Your task to perform on an android device: Open battery settings Image 0: 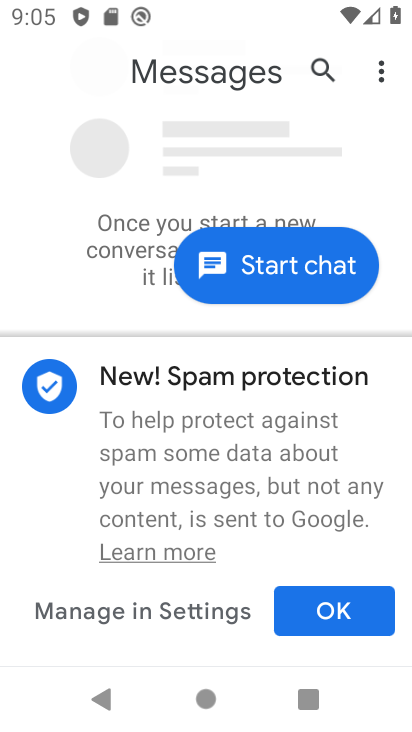
Step 0: press back button
Your task to perform on an android device: Open battery settings Image 1: 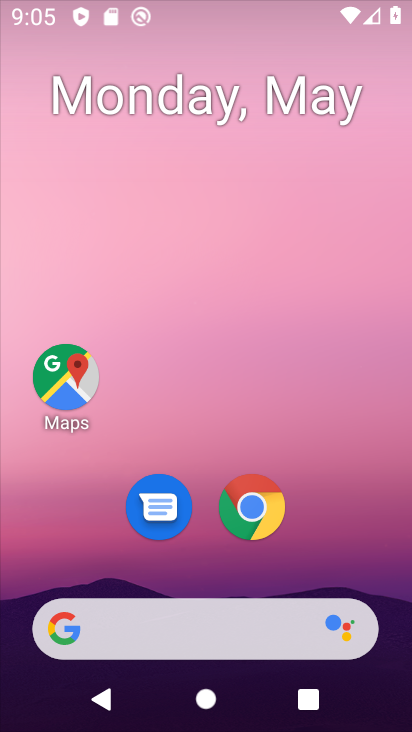
Step 1: drag from (247, 685) to (226, 161)
Your task to perform on an android device: Open battery settings Image 2: 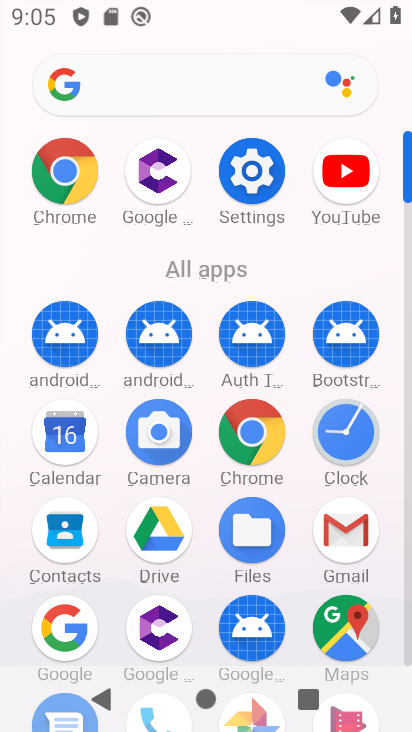
Step 2: click (260, 166)
Your task to perform on an android device: Open battery settings Image 3: 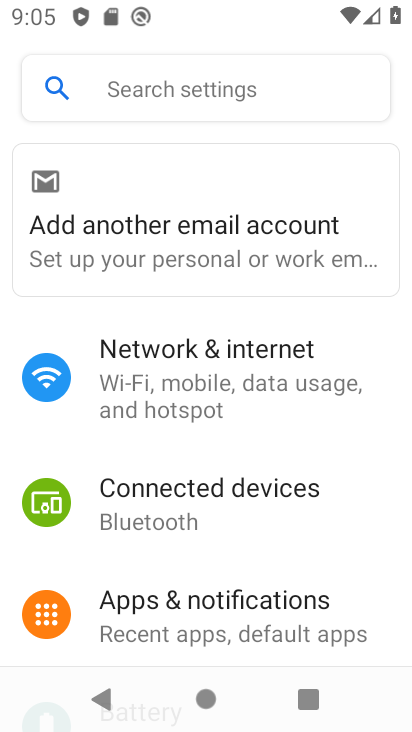
Step 3: drag from (256, 597) to (265, 157)
Your task to perform on an android device: Open battery settings Image 4: 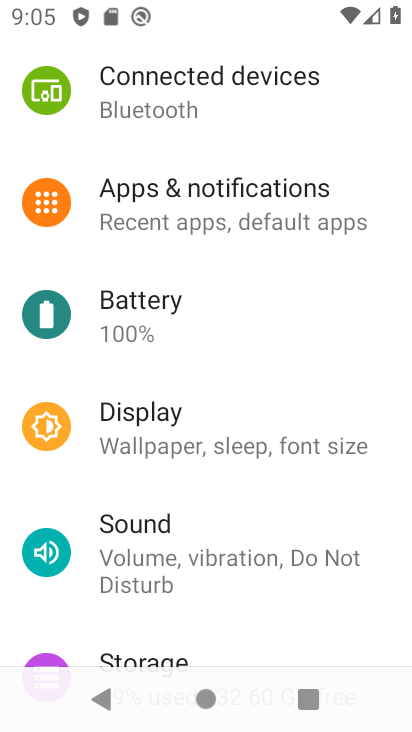
Step 4: click (196, 310)
Your task to perform on an android device: Open battery settings Image 5: 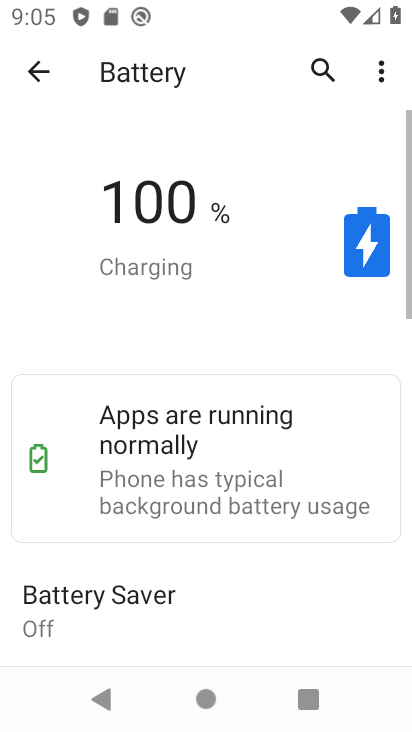
Step 5: task complete